Your task to perform on an android device: see sites visited before in the chrome app Image 0: 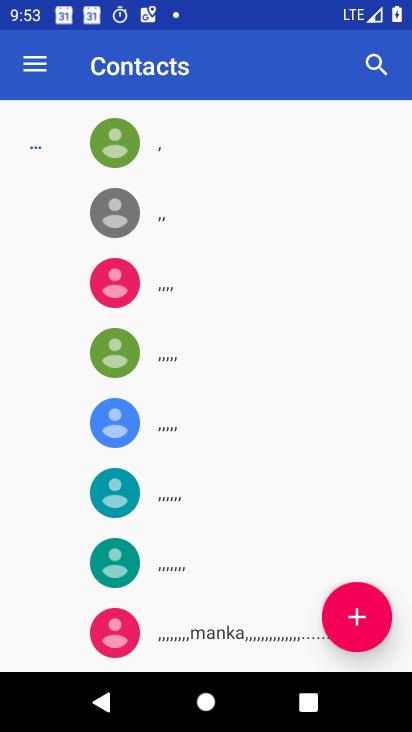
Step 0: press home button
Your task to perform on an android device: see sites visited before in the chrome app Image 1: 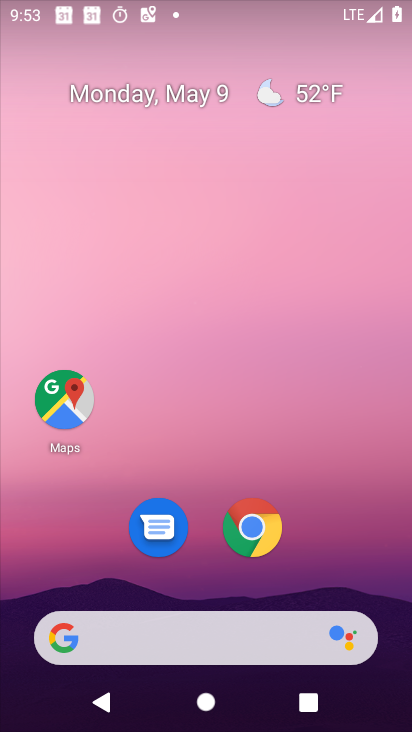
Step 1: drag from (331, 551) to (336, 201)
Your task to perform on an android device: see sites visited before in the chrome app Image 2: 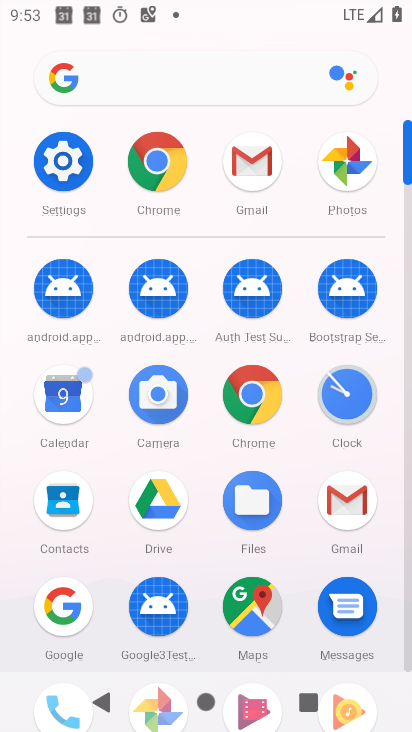
Step 2: click (263, 409)
Your task to perform on an android device: see sites visited before in the chrome app Image 3: 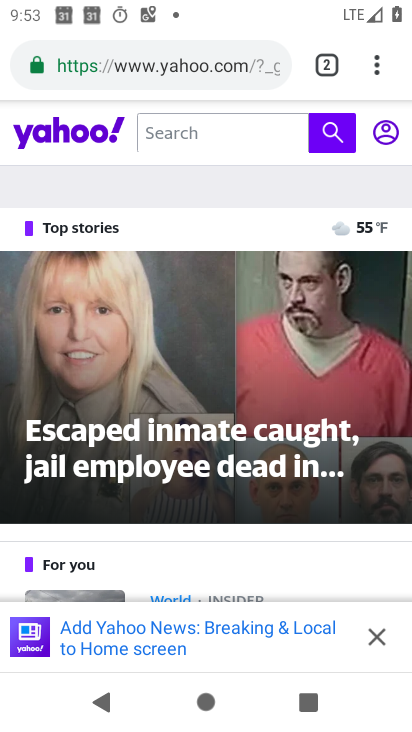
Step 3: click (374, 641)
Your task to perform on an android device: see sites visited before in the chrome app Image 4: 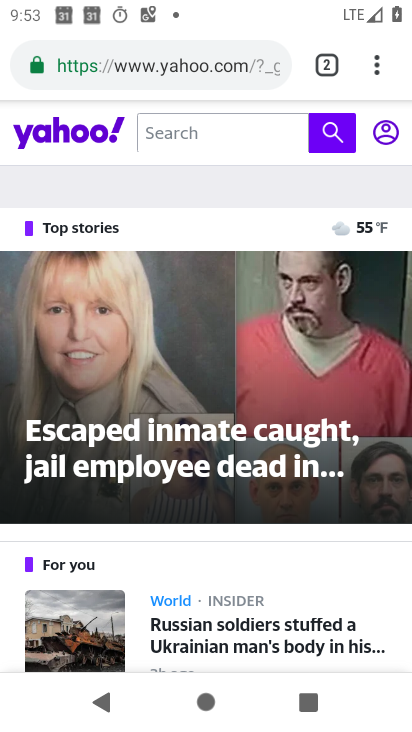
Step 4: task complete